Your task to perform on an android device: Open Youtube and go to "Your channel" Image 0: 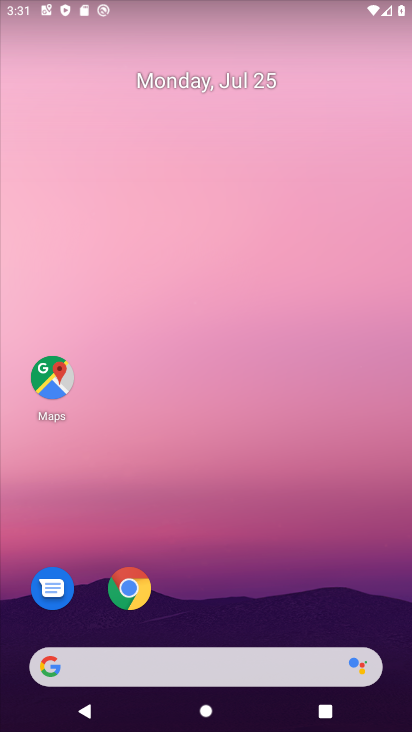
Step 0: drag from (194, 606) to (219, 41)
Your task to perform on an android device: Open Youtube and go to "Your channel" Image 1: 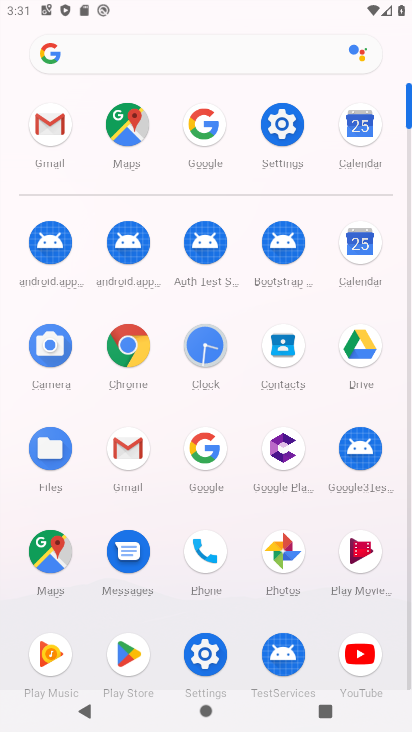
Step 1: click (344, 679)
Your task to perform on an android device: Open Youtube and go to "Your channel" Image 2: 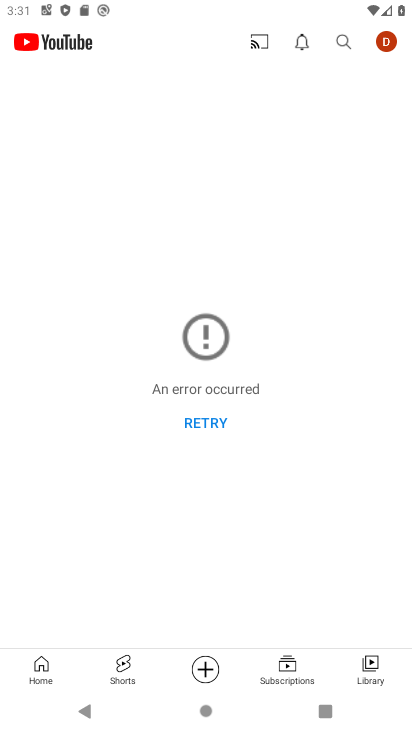
Step 2: click (375, 27)
Your task to perform on an android device: Open Youtube and go to "Your channel" Image 3: 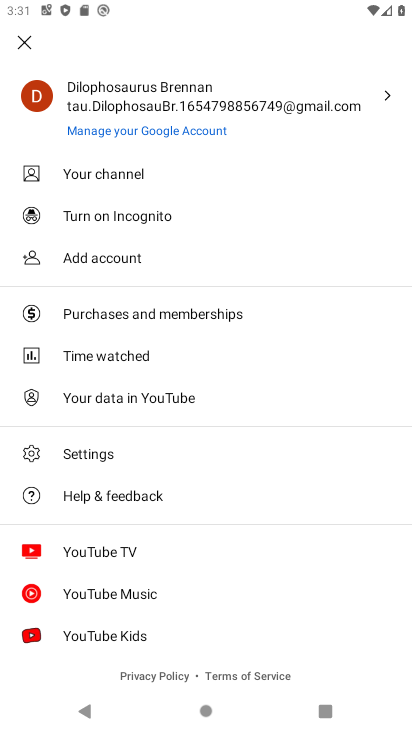
Step 3: click (146, 176)
Your task to perform on an android device: Open Youtube and go to "Your channel" Image 4: 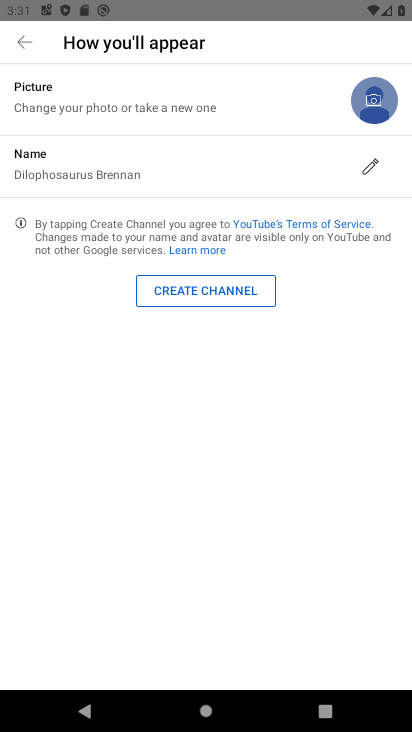
Step 4: task complete